Your task to perform on an android device: change keyboard looks Image 0: 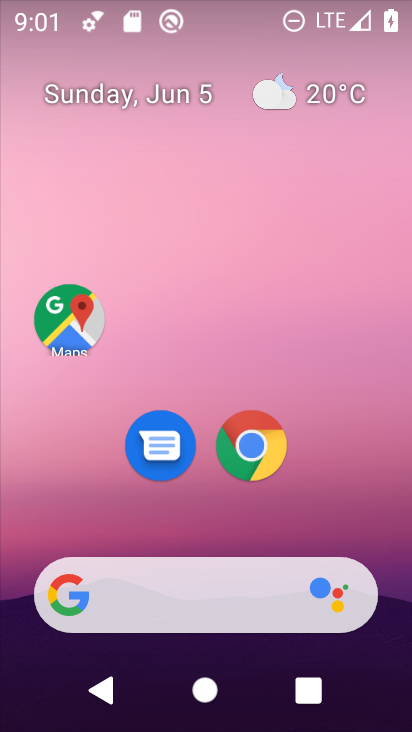
Step 0: drag from (227, 590) to (243, 23)
Your task to perform on an android device: change keyboard looks Image 1: 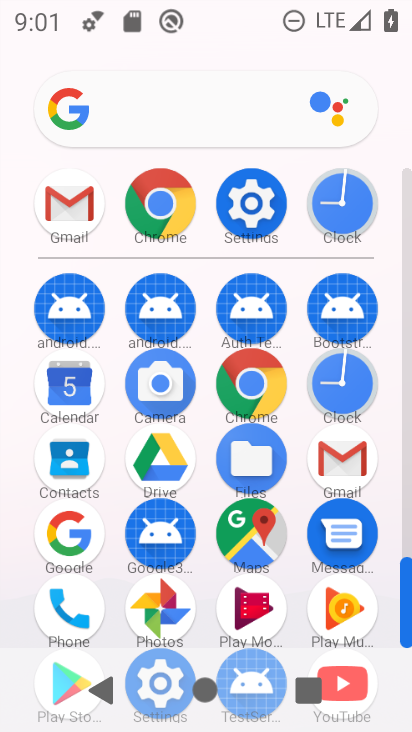
Step 1: click (231, 195)
Your task to perform on an android device: change keyboard looks Image 2: 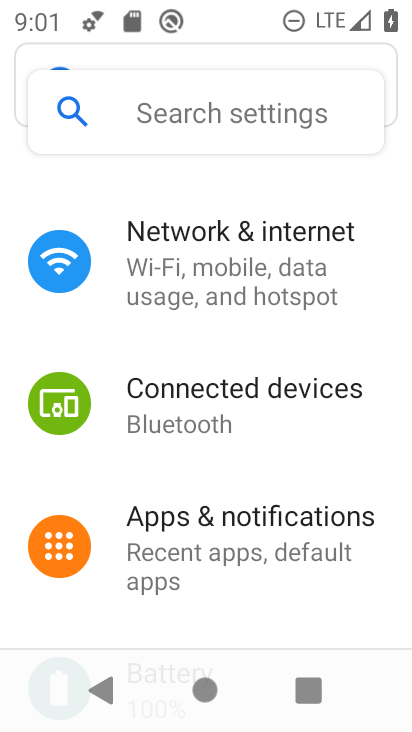
Step 2: drag from (153, 549) to (125, 102)
Your task to perform on an android device: change keyboard looks Image 3: 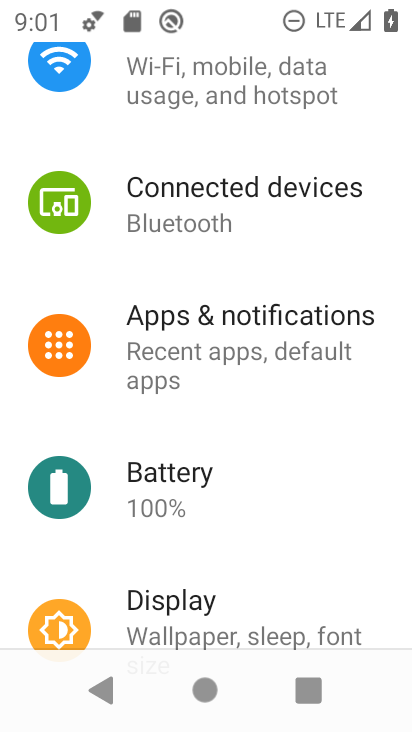
Step 3: drag from (155, 568) to (227, 181)
Your task to perform on an android device: change keyboard looks Image 4: 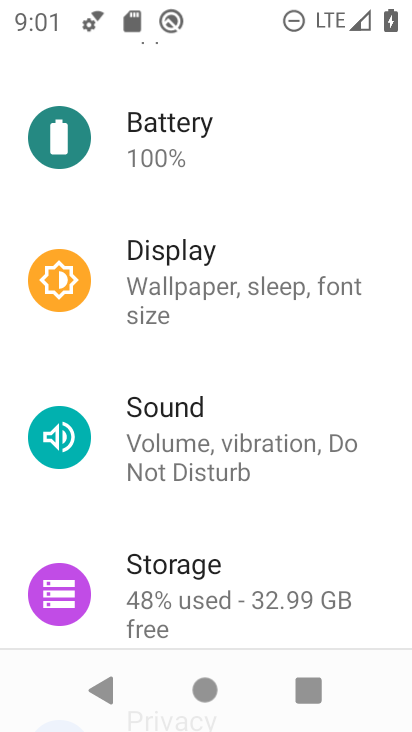
Step 4: drag from (193, 543) to (226, 109)
Your task to perform on an android device: change keyboard looks Image 5: 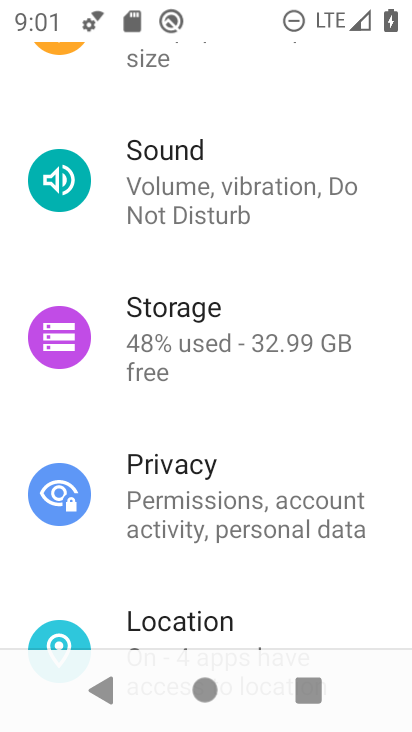
Step 5: drag from (191, 562) to (170, 93)
Your task to perform on an android device: change keyboard looks Image 6: 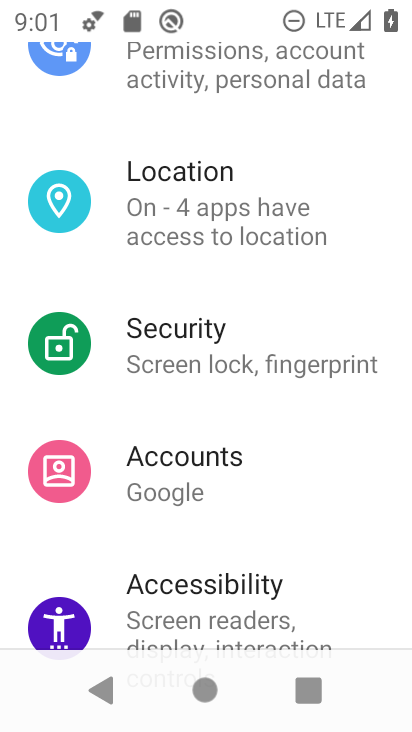
Step 6: drag from (138, 576) to (222, 18)
Your task to perform on an android device: change keyboard looks Image 7: 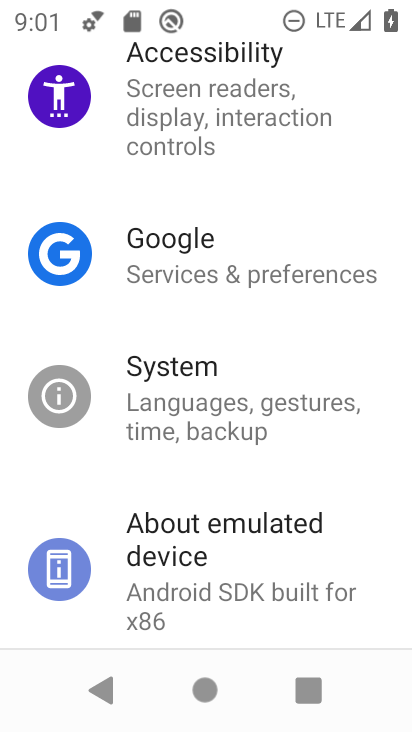
Step 7: click (221, 416)
Your task to perform on an android device: change keyboard looks Image 8: 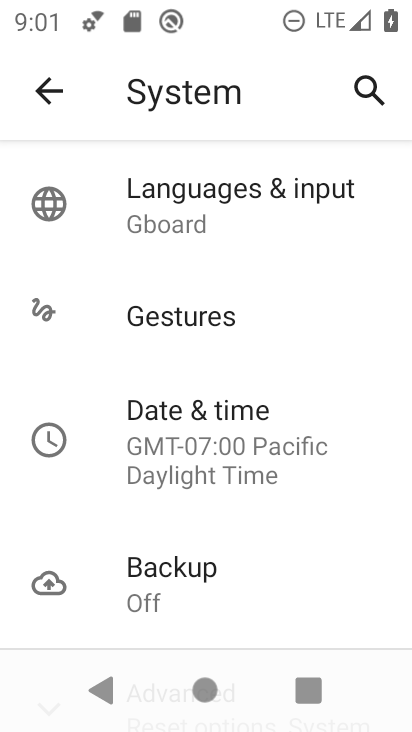
Step 8: drag from (205, 585) to (244, 321)
Your task to perform on an android device: change keyboard looks Image 9: 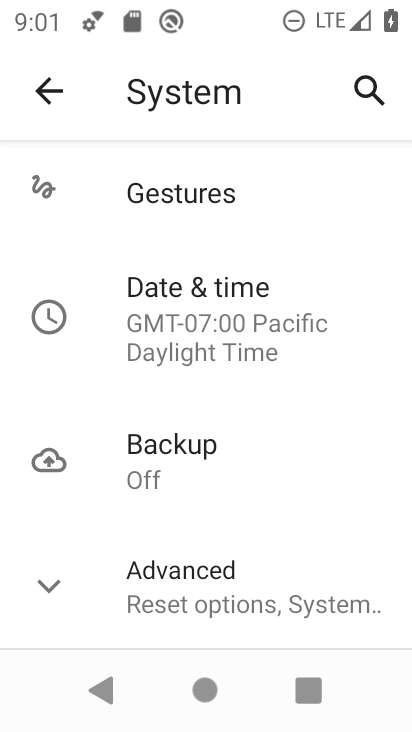
Step 9: drag from (245, 300) to (226, 688)
Your task to perform on an android device: change keyboard looks Image 10: 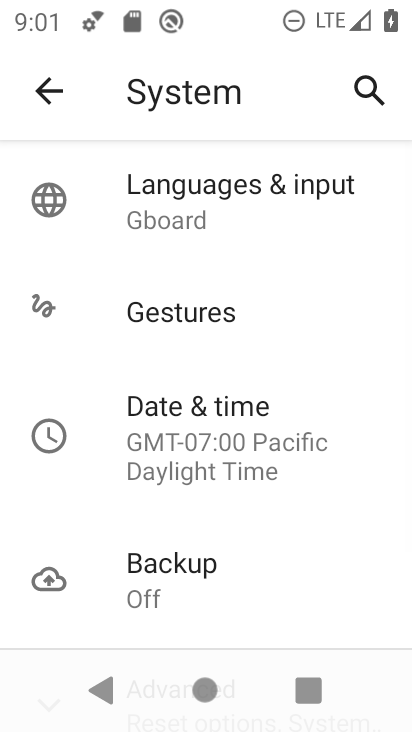
Step 10: click (261, 213)
Your task to perform on an android device: change keyboard looks Image 11: 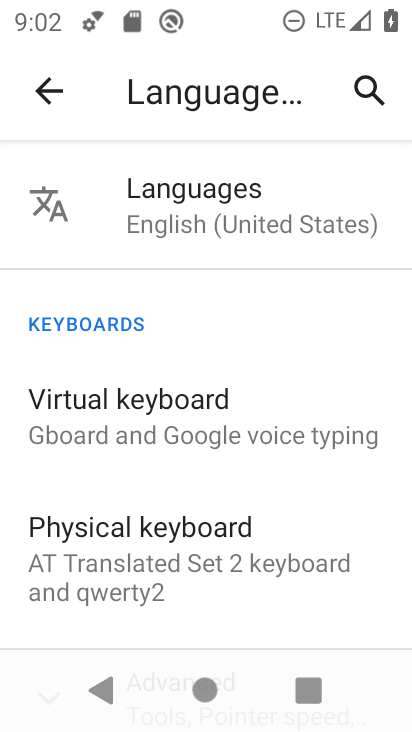
Step 11: click (201, 415)
Your task to perform on an android device: change keyboard looks Image 12: 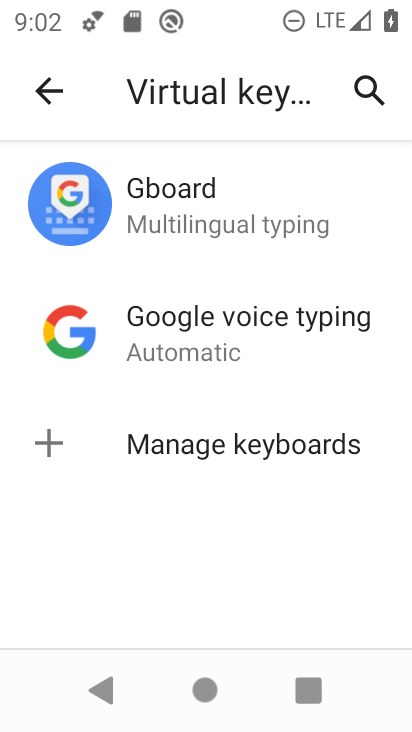
Step 12: click (238, 220)
Your task to perform on an android device: change keyboard looks Image 13: 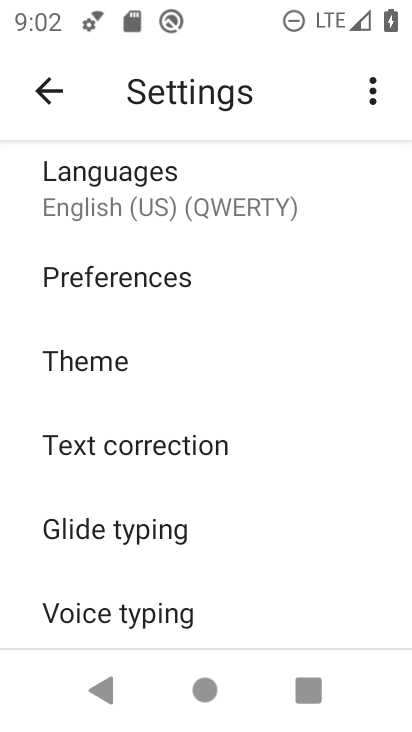
Step 13: click (107, 356)
Your task to perform on an android device: change keyboard looks Image 14: 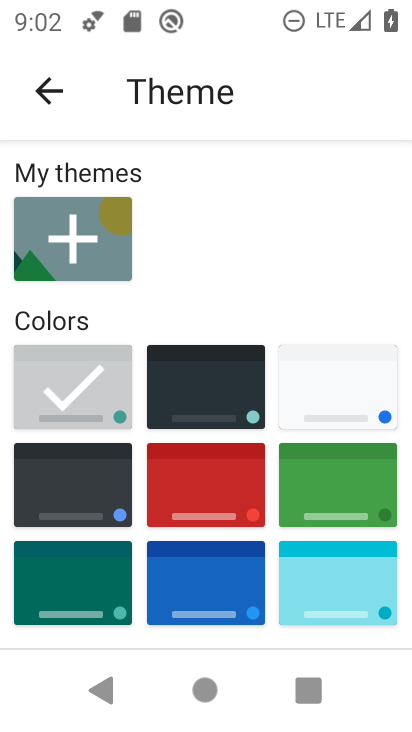
Step 14: click (200, 376)
Your task to perform on an android device: change keyboard looks Image 15: 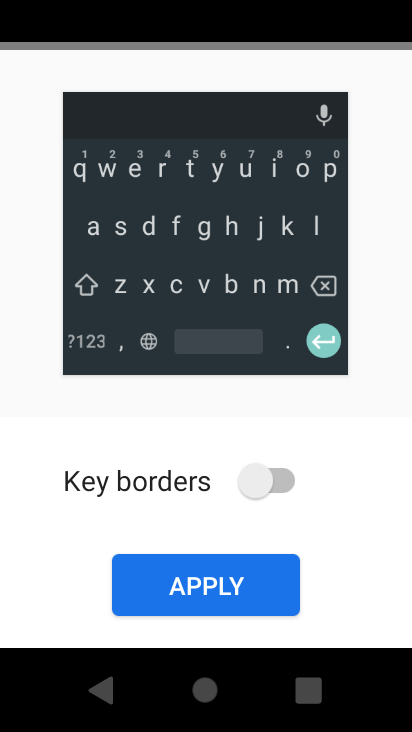
Step 15: click (219, 602)
Your task to perform on an android device: change keyboard looks Image 16: 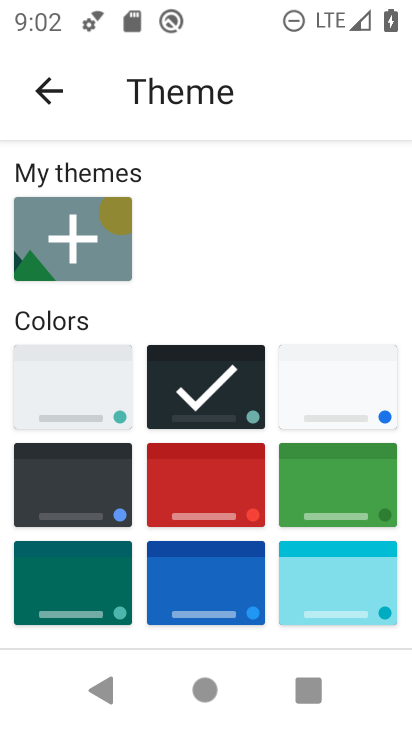
Step 16: task complete